Your task to perform on an android device: Open Wikipedia Image 0: 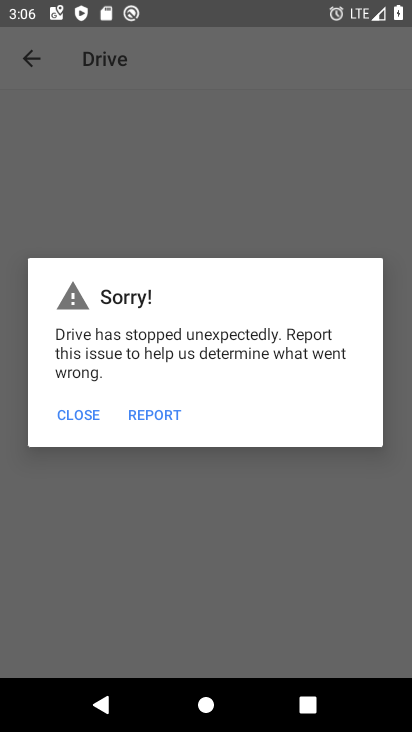
Step 0: press home button
Your task to perform on an android device: Open Wikipedia Image 1: 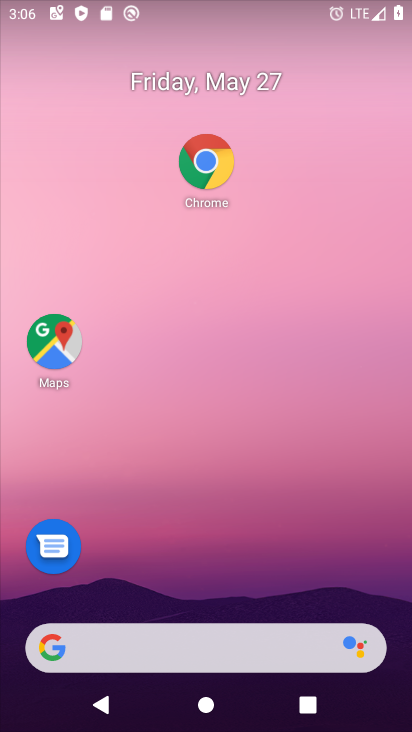
Step 1: click (196, 155)
Your task to perform on an android device: Open Wikipedia Image 2: 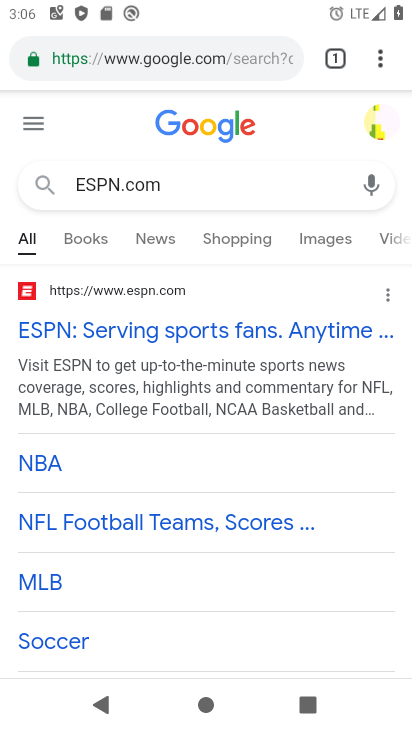
Step 2: click (223, 51)
Your task to perform on an android device: Open Wikipedia Image 3: 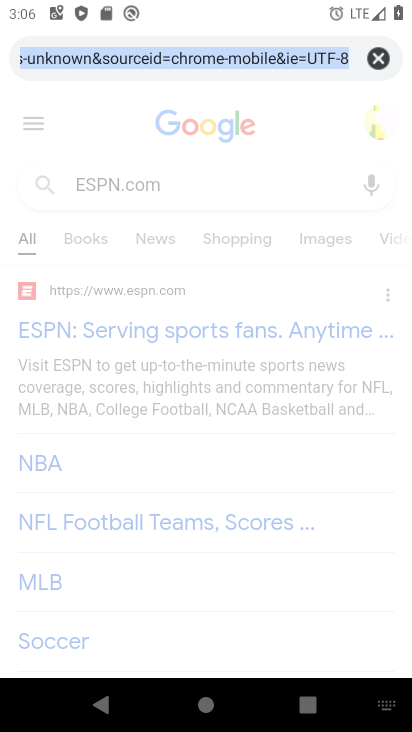
Step 3: type "Wikipedia"
Your task to perform on an android device: Open Wikipedia Image 4: 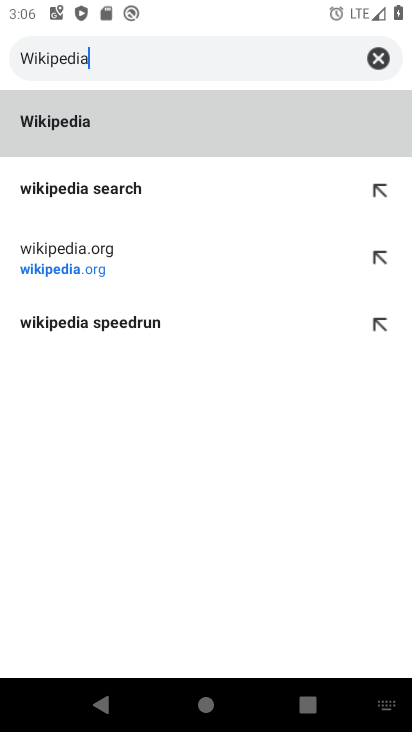
Step 4: click (61, 104)
Your task to perform on an android device: Open Wikipedia Image 5: 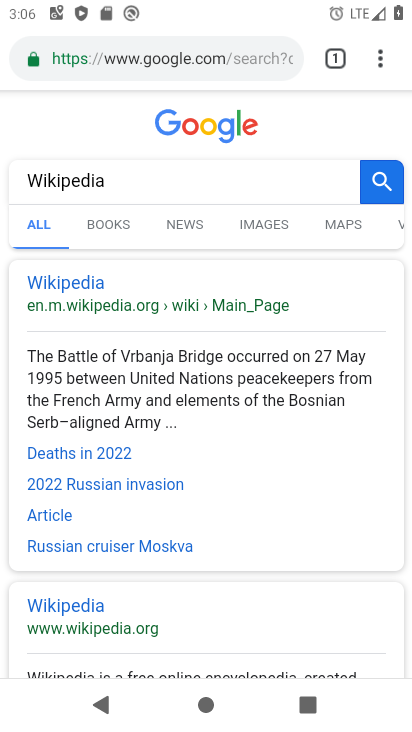
Step 5: task complete